Your task to perform on an android device: Open Google Chrome and open the bookmarks view Image 0: 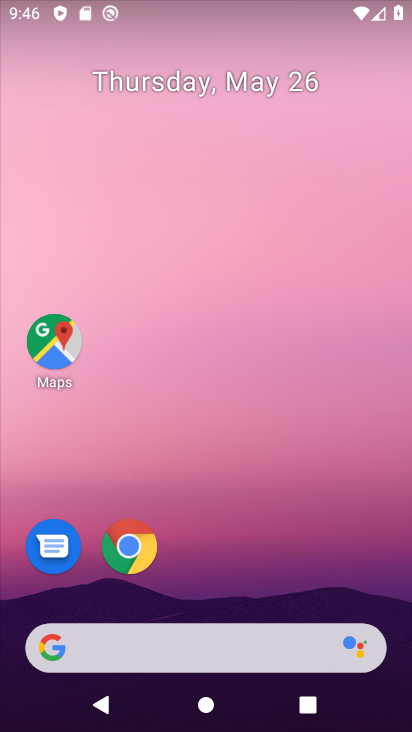
Step 0: click (129, 550)
Your task to perform on an android device: Open Google Chrome and open the bookmarks view Image 1: 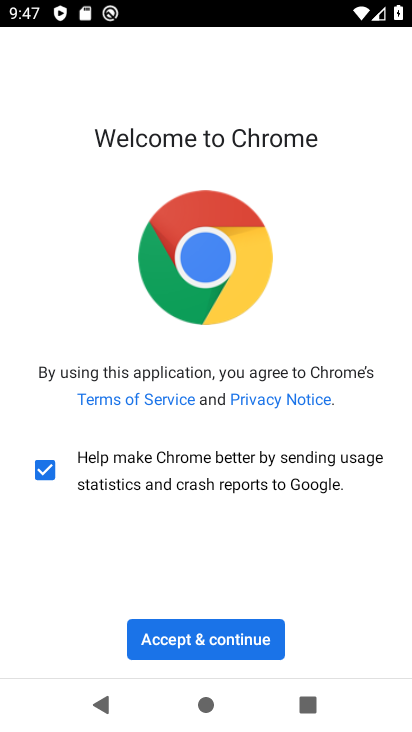
Step 1: click (180, 640)
Your task to perform on an android device: Open Google Chrome and open the bookmarks view Image 2: 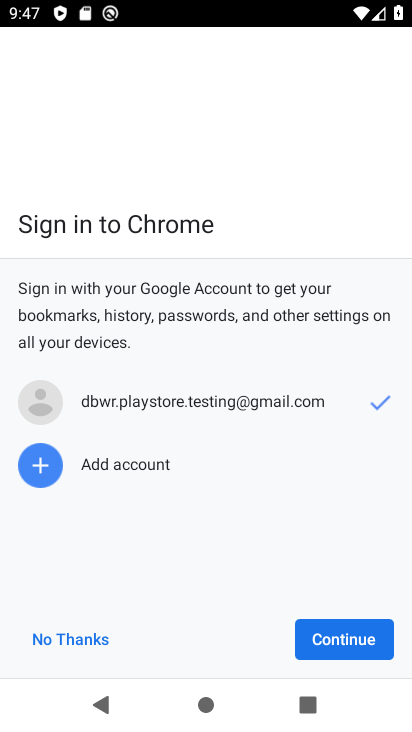
Step 2: click (340, 636)
Your task to perform on an android device: Open Google Chrome and open the bookmarks view Image 3: 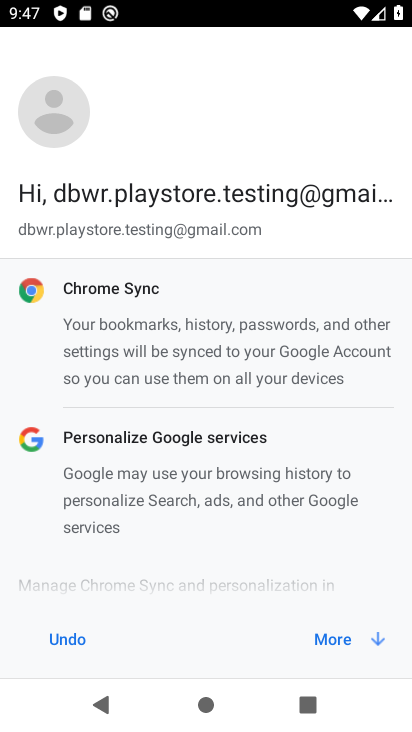
Step 3: click (340, 636)
Your task to perform on an android device: Open Google Chrome and open the bookmarks view Image 4: 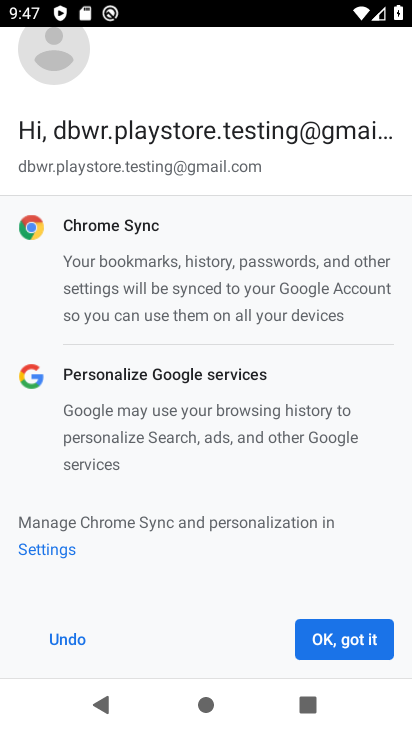
Step 4: click (340, 636)
Your task to perform on an android device: Open Google Chrome and open the bookmarks view Image 5: 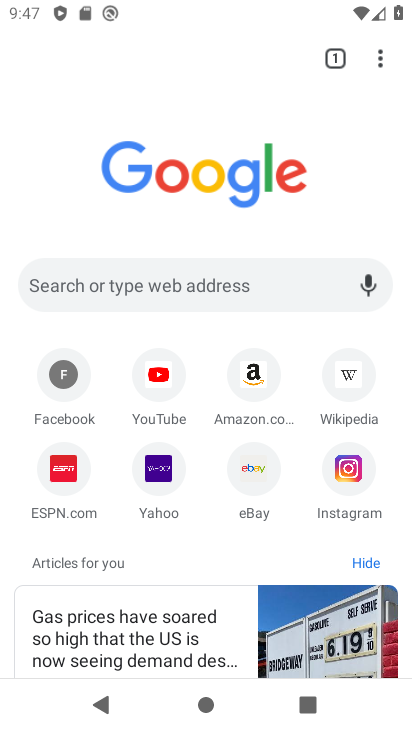
Step 5: click (384, 59)
Your task to perform on an android device: Open Google Chrome and open the bookmarks view Image 6: 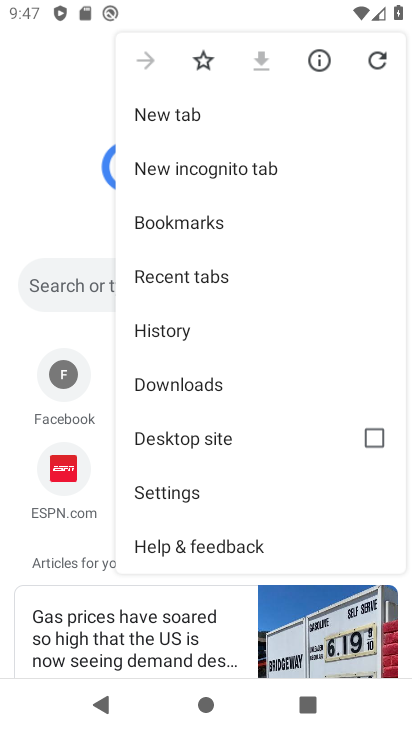
Step 6: click (186, 221)
Your task to perform on an android device: Open Google Chrome and open the bookmarks view Image 7: 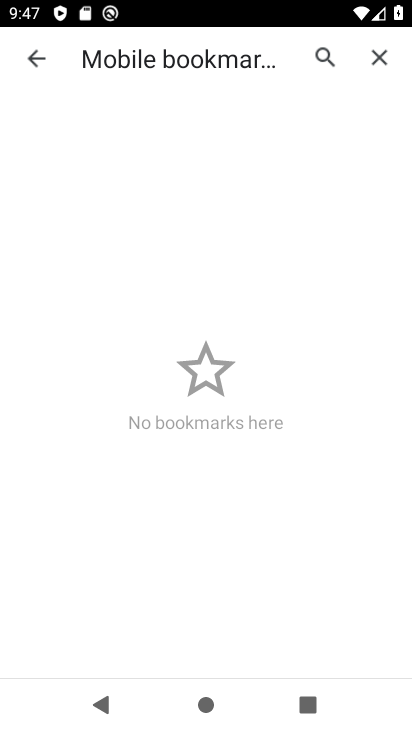
Step 7: task complete